Your task to perform on an android device: Clear all items from cart on bestbuy. Image 0: 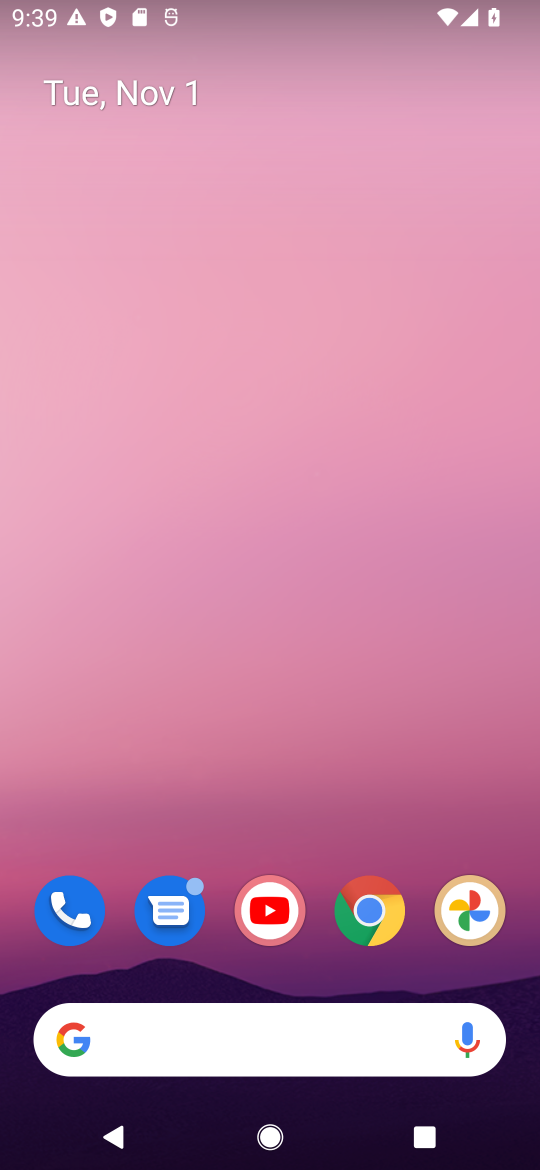
Step 0: click (377, 922)
Your task to perform on an android device: Clear all items from cart on bestbuy. Image 1: 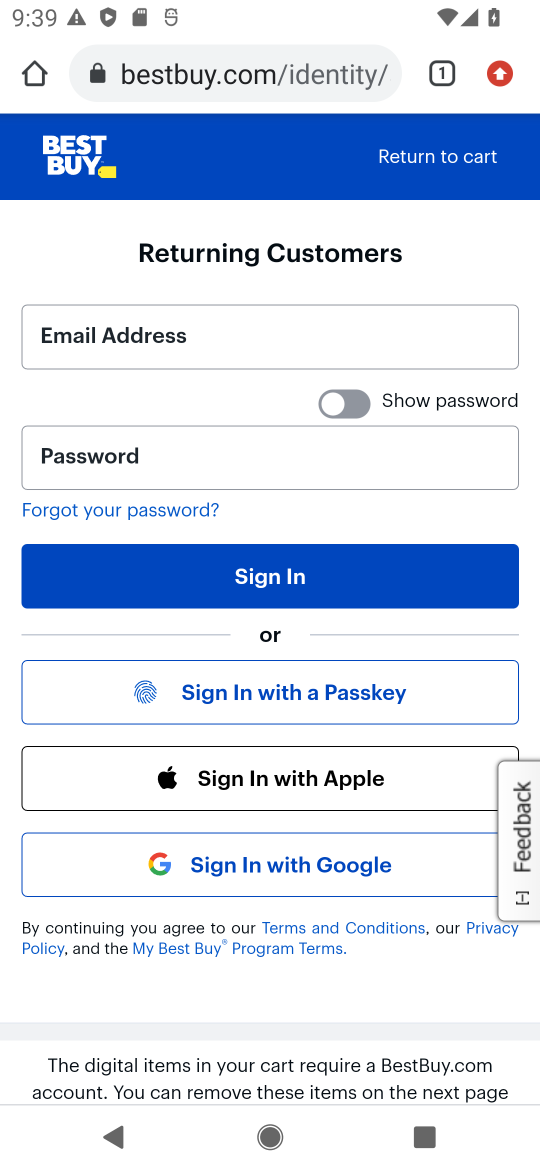
Step 1: click (220, 79)
Your task to perform on an android device: Clear all items from cart on bestbuy. Image 2: 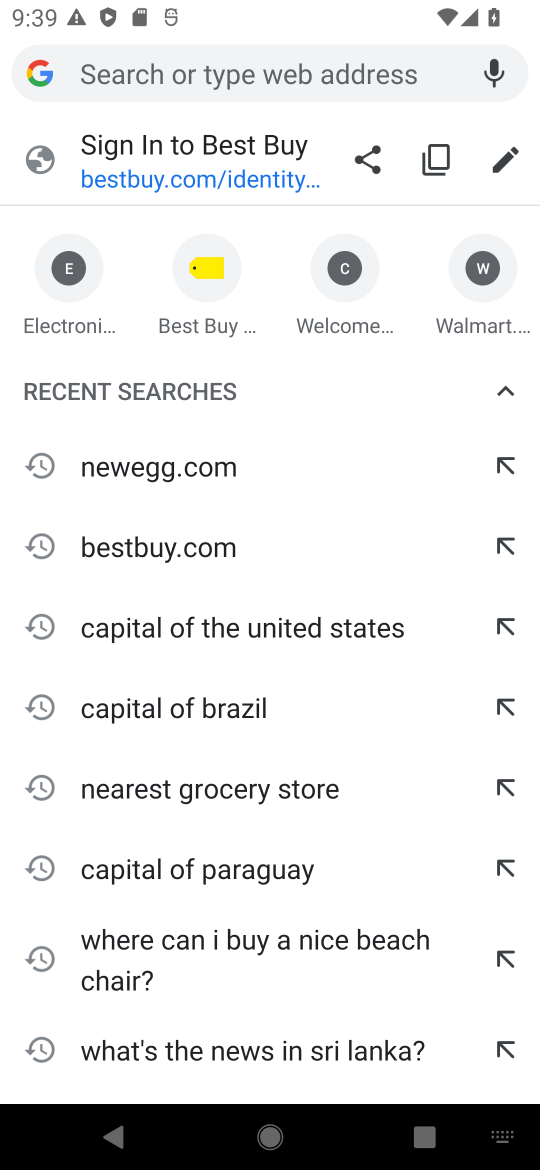
Step 2: type "bestbuy.com"
Your task to perform on an android device: Clear all items from cart on bestbuy. Image 3: 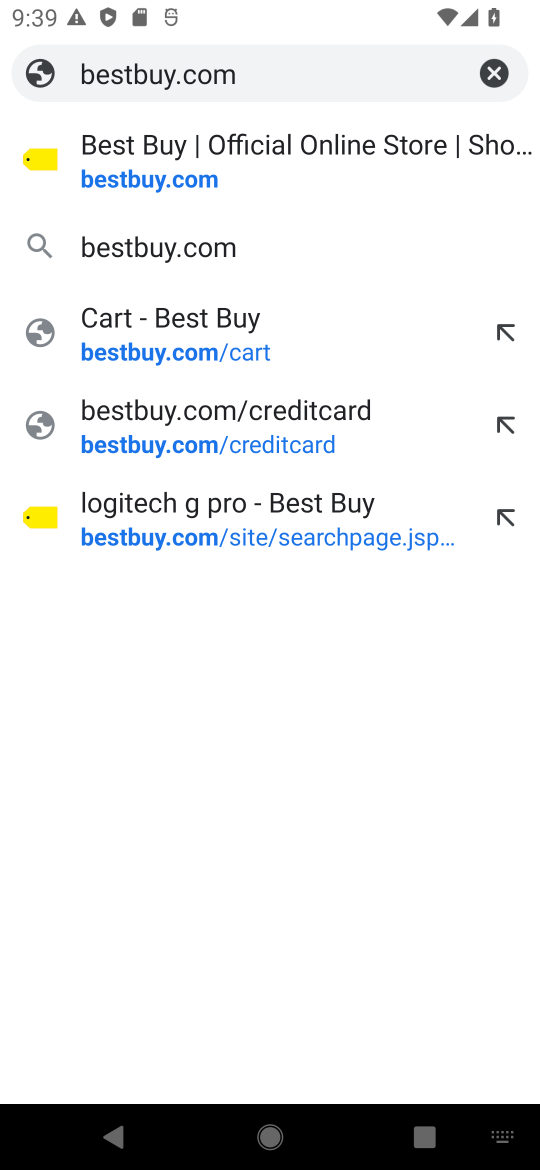
Step 3: click (156, 180)
Your task to perform on an android device: Clear all items from cart on bestbuy. Image 4: 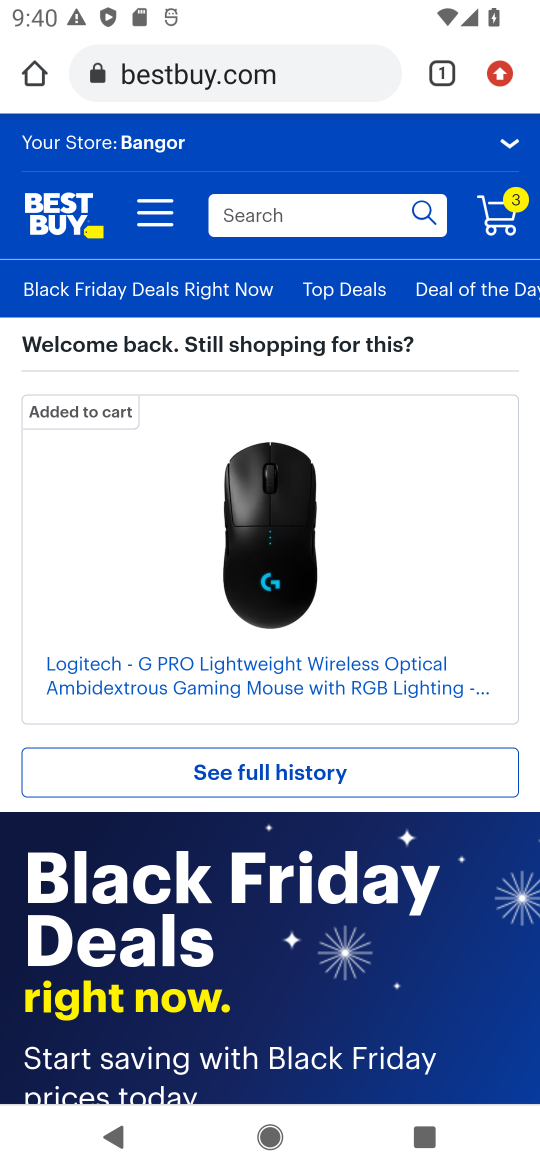
Step 4: click (485, 217)
Your task to perform on an android device: Clear all items from cart on bestbuy. Image 5: 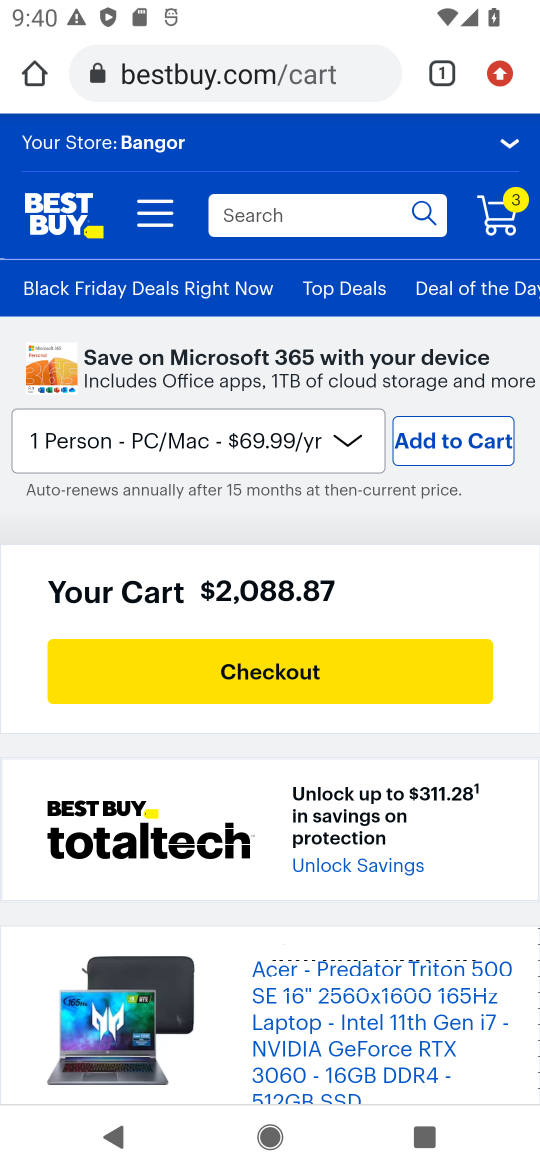
Step 5: click (499, 221)
Your task to perform on an android device: Clear all items from cart on bestbuy. Image 6: 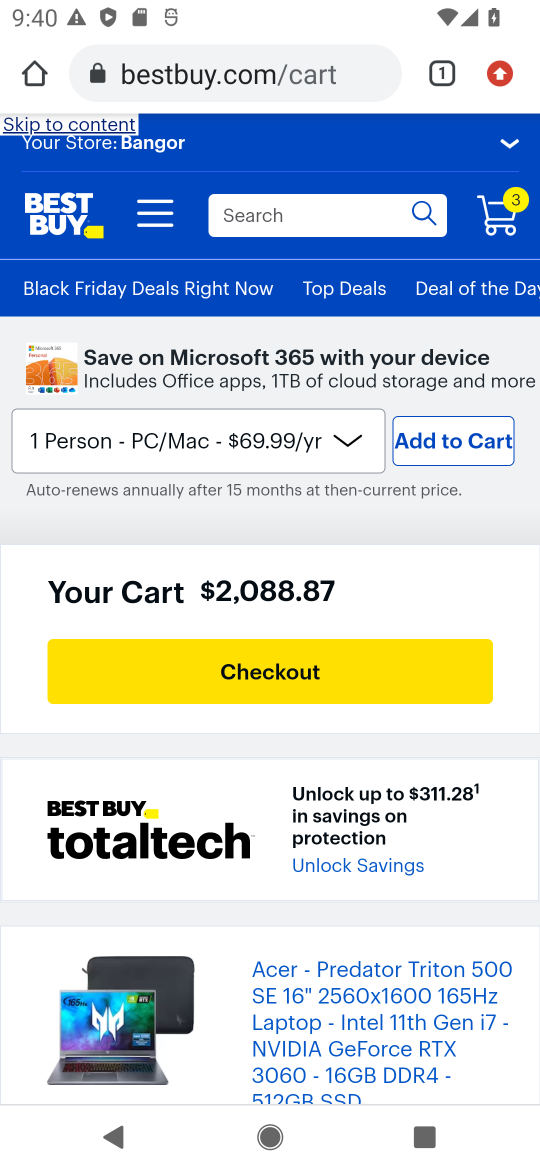
Step 6: drag from (258, 767) to (304, 387)
Your task to perform on an android device: Clear all items from cart on bestbuy. Image 7: 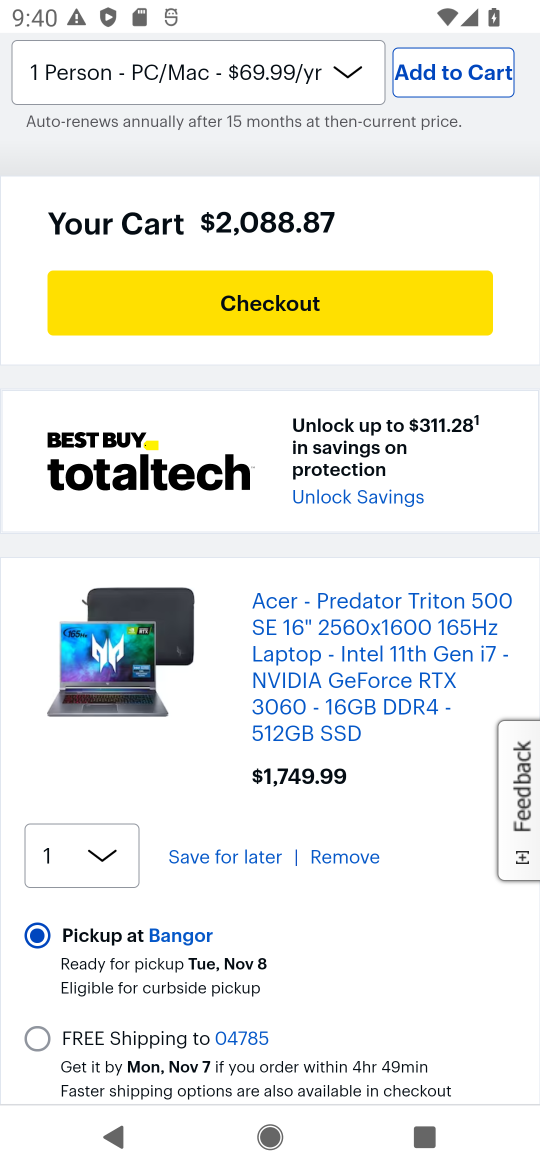
Step 7: click (345, 860)
Your task to perform on an android device: Clear all items from cart on bestbuy. Image 8: 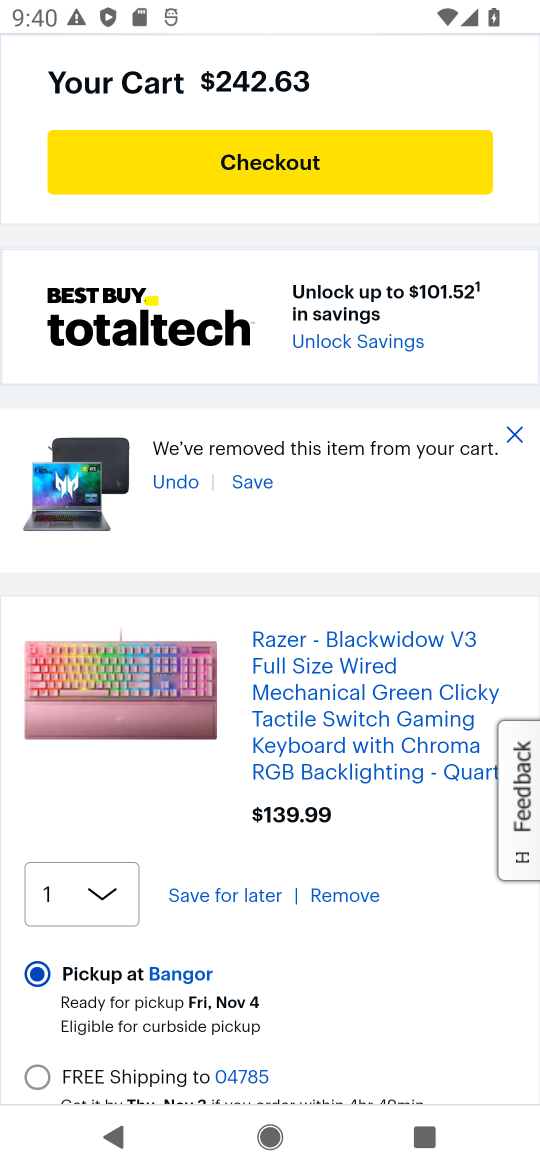
Step 8: click (349, 900)
Your task to perform on an android device: Clear all items from cart on bestbuy. Image 9: 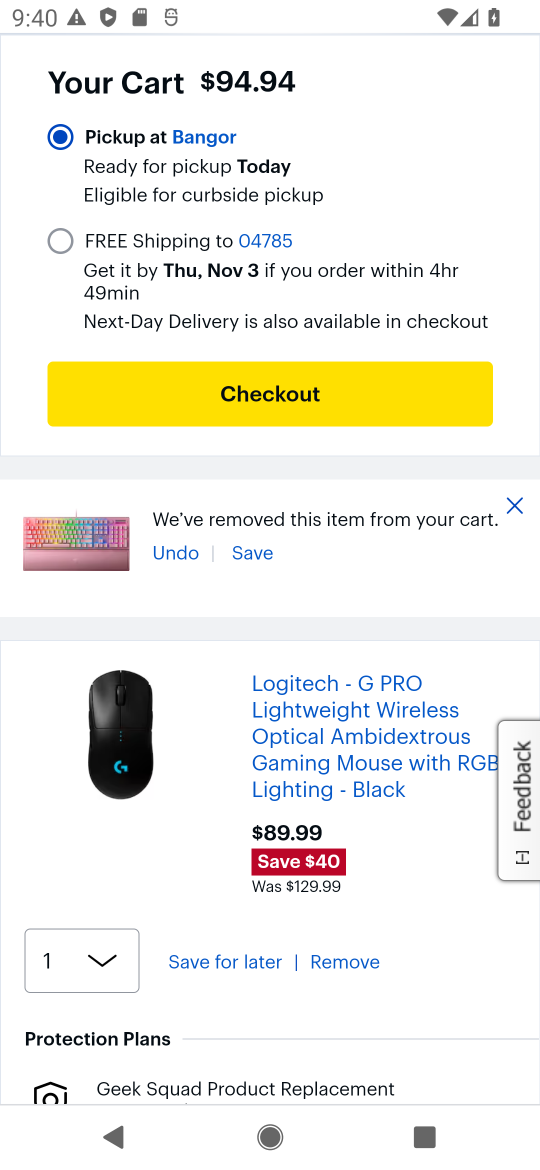
Step 9: click (331, 964)
Your task to perform on an android device: Clear all items from cart on bestbuy. Image 10: 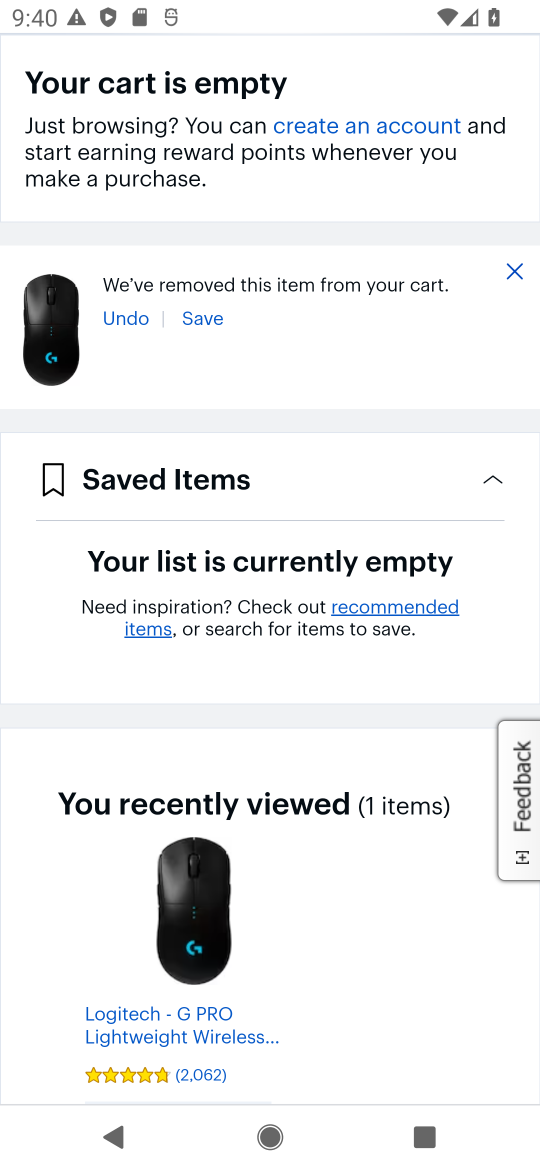
Step 10: task complete